Your task to perform on an android device: turn on the 24-hour format for clock Image 0: 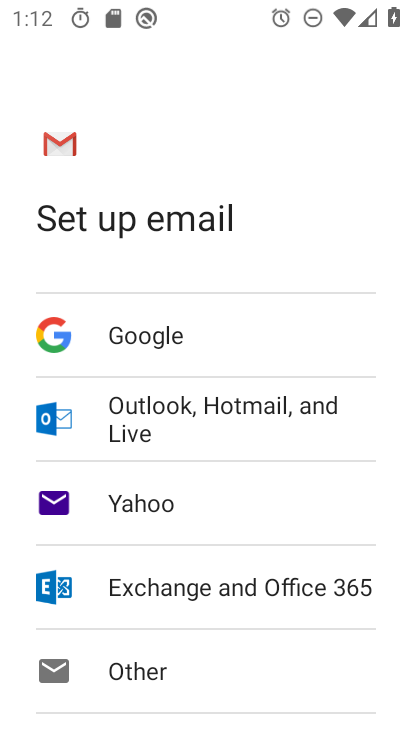
Step 0: press back button
Your task to perform on an android device: turn on the 24-hour format for clock Image 1: 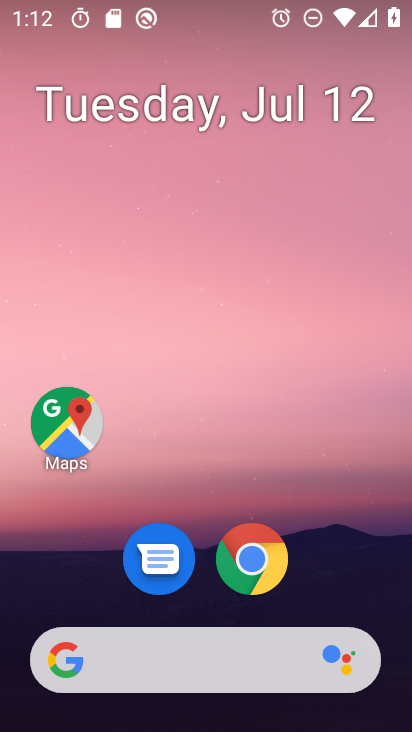
Step 1: drag from (183, 569) to (238, 64)
Your task to perform on an android device: turn on the 24-hour format for clock Image 2: 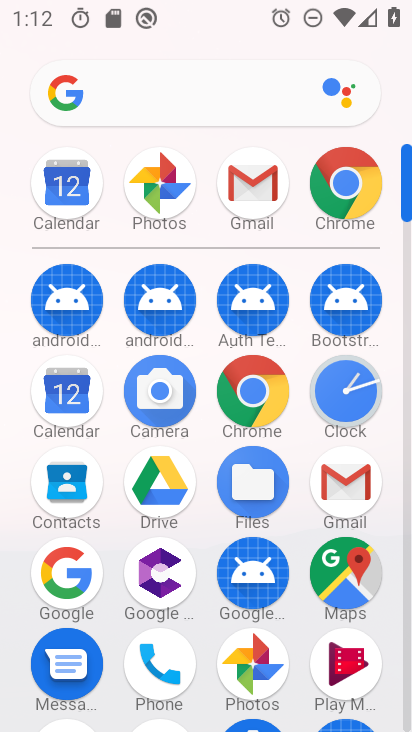
Step 2: click (360, 390)
Your task to perform on an android device: turn on the 24-hour format for clock Image 3: 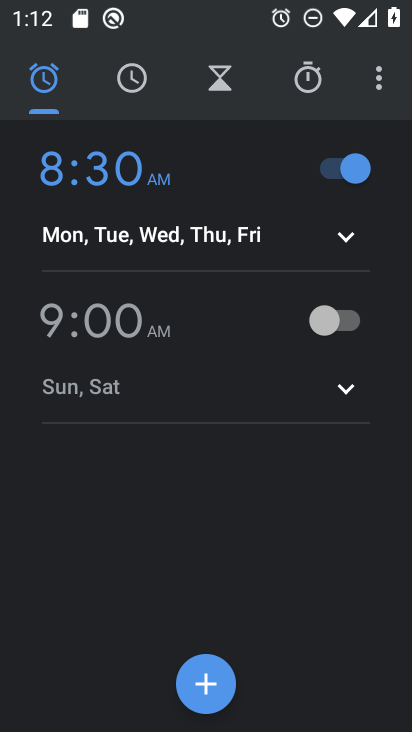
Step 3: click (308, 77)
Your task to perform on an android device: turn on the 24-hour format for clock Image 4: 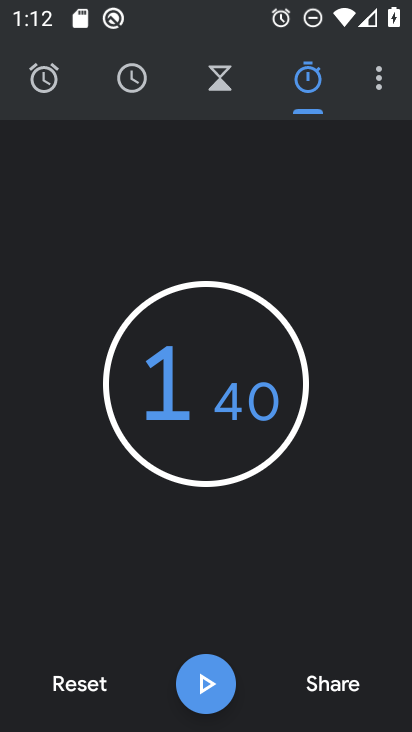
Step 4: click (375, 73)
Your task to perform on an android device: turn on the 24-hour format for clock Image 5: 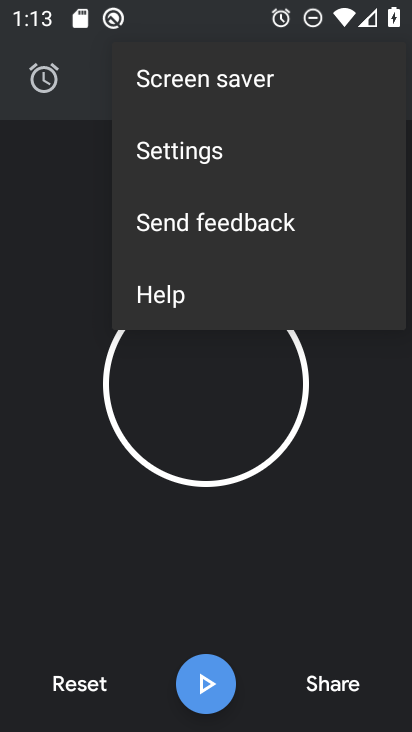
Step 5: click (195, 154)
Your task to perform on an android device: turn on the 24-hour format for clock Image 6: 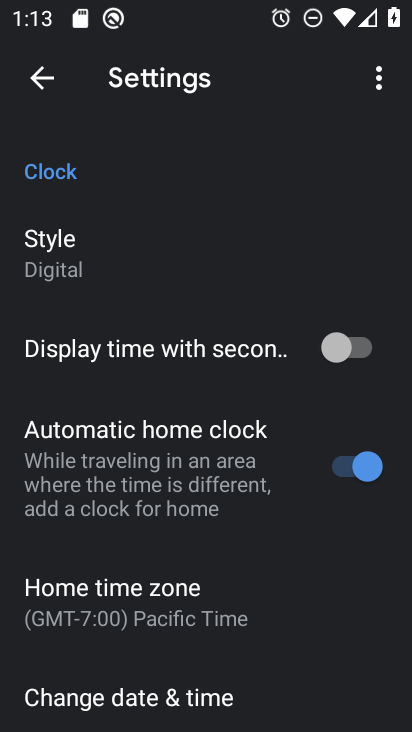
Step 6: drag from (168, 672) to (220, 344)
Your task to perform on an android device: turn on the 24-hour format for clock Image 7: 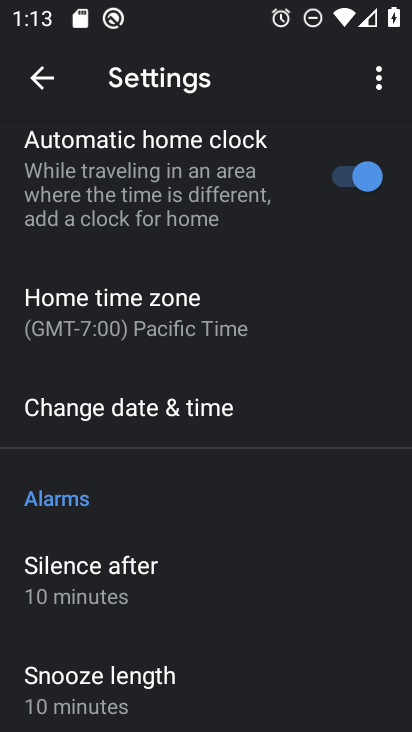
Step 7: click (201, 411)
Your task to perform on an android device: turn on the 24-hour format for clock Image 8: 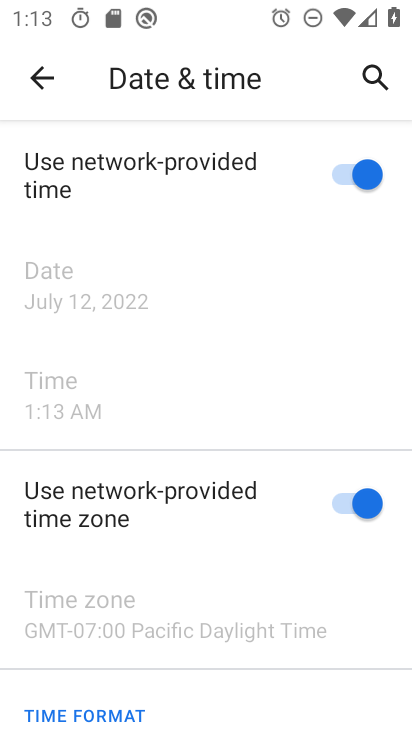
Step 8: drag from (291, 575) to (362, 121)
Your task to perform on an android device: turn on the 24-hour format for clock Image 9: 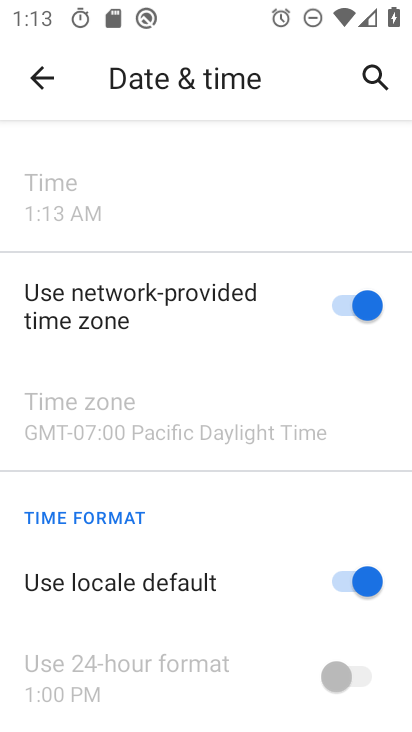
Step 9: click (365, 583)
Your task to perform on an android device: turn on the 24-hour format for clock Image 10: 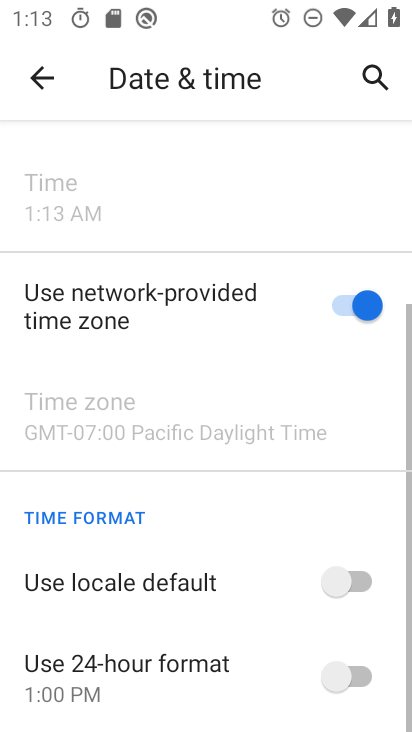
Step 10: click (356, 665)
Your task to perform on an android device: turn on the 24-hour format for clock Image 11: 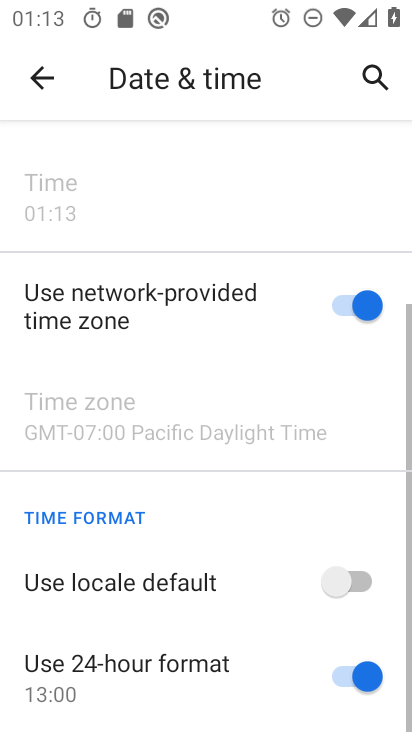
Step 11: task complete